Your task to perform on an android device: Go to Reddit.com Image 0: 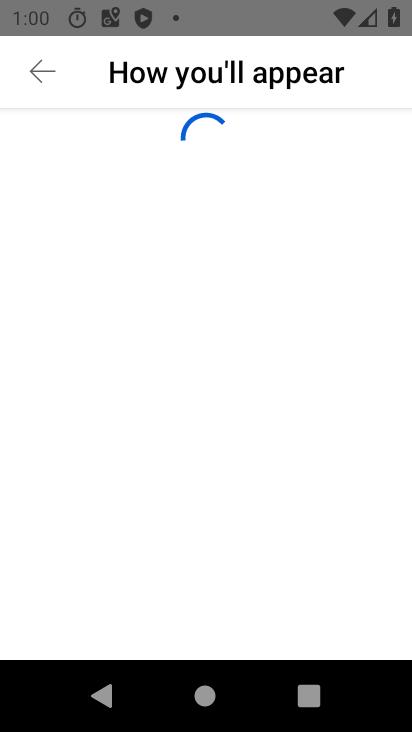
Step 0: drag from (208, 587) to (252, 226)
Your task to perform on an android device: Go to Reddit.com Image 1: 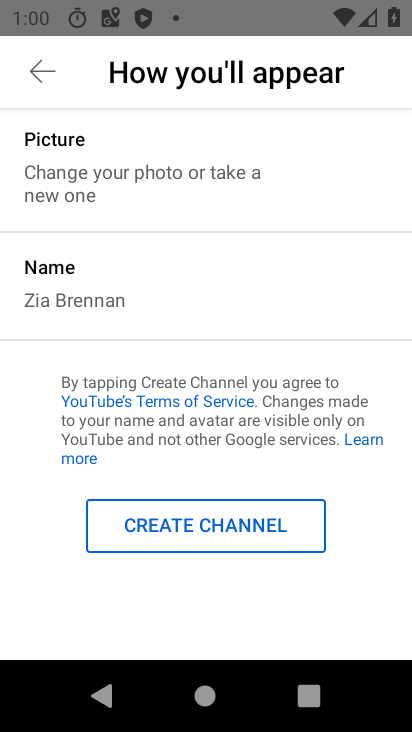
Step 1: press home button
Your task to perform on an android device: Go to Reddit.com Image 2: 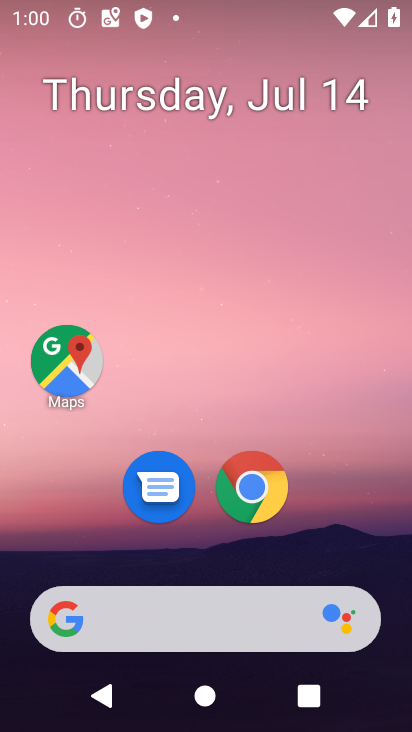
Step 2: drag from (189, 624) to (214, 300)
Your task to perform on an android device: Go to Reddit.com Image 3: 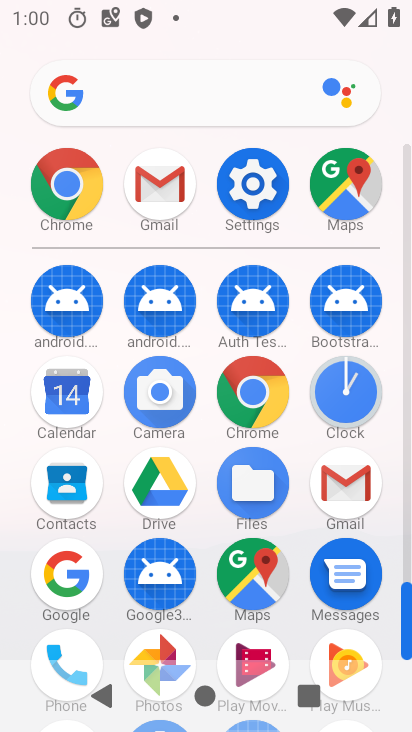
Step 3: click (71, 209)
Your task to perform on an android device: Go to Reddit.com Image 4: 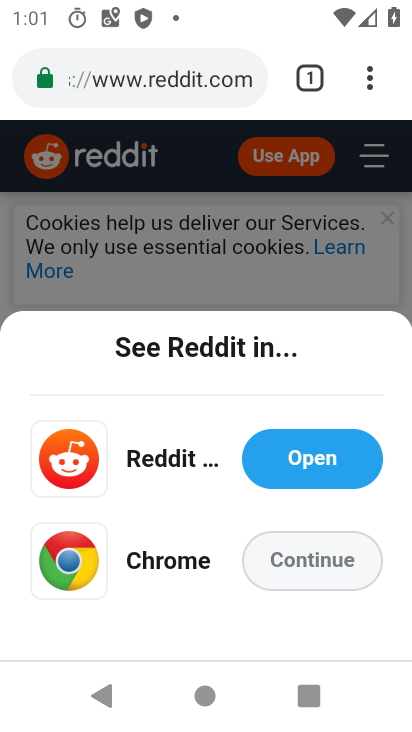
Step 4: task complete